Your task to perform on an android device: Open my contact list Image 0: 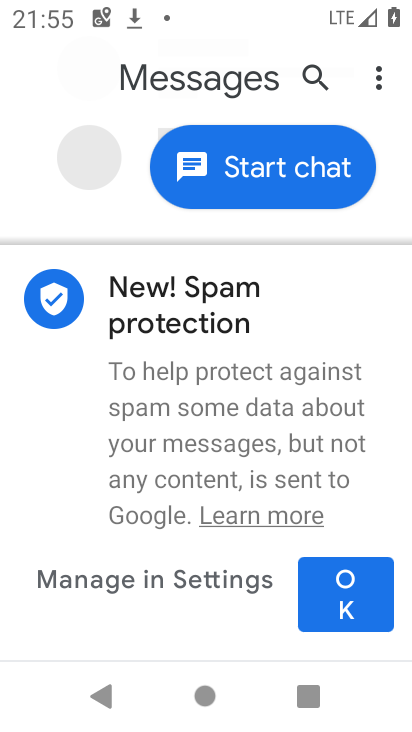
Step 0: press back button
Your task to perform on an android device: Open my contact list Image 1: 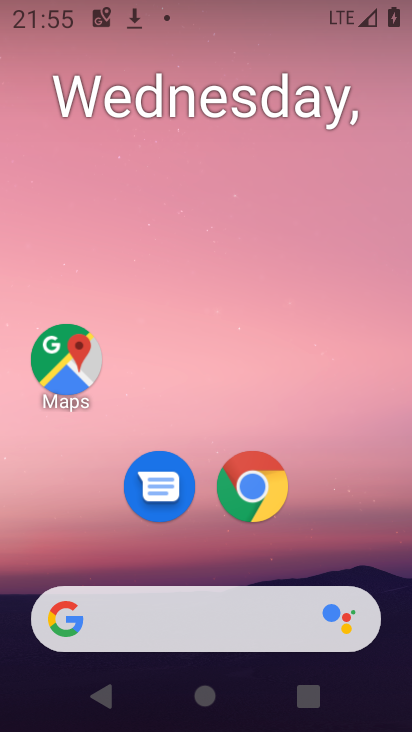
Step 1: drag from (161, 551) to (101, 25)
Your task to perform on an android device: Open my contact list Image 2: 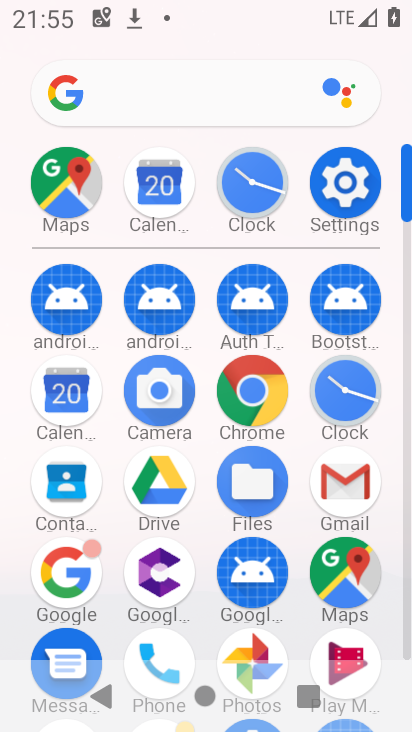
Step 2: click (73, 483)
Your task to perform on an android device: Open my contact list Image 3: 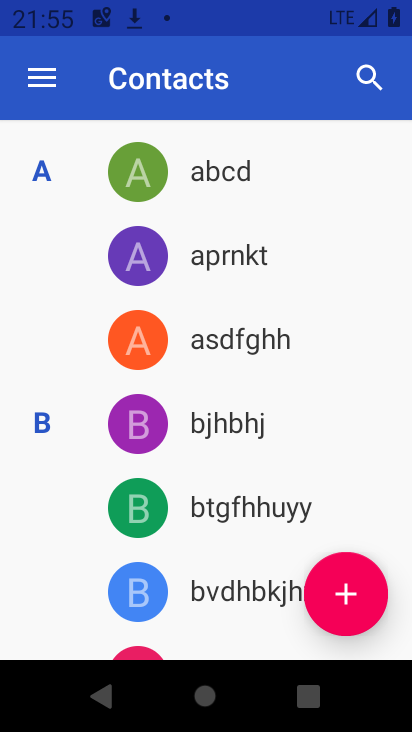
Step 3: task complete